Your task to perform on an android device: Open Amazon Image 0: 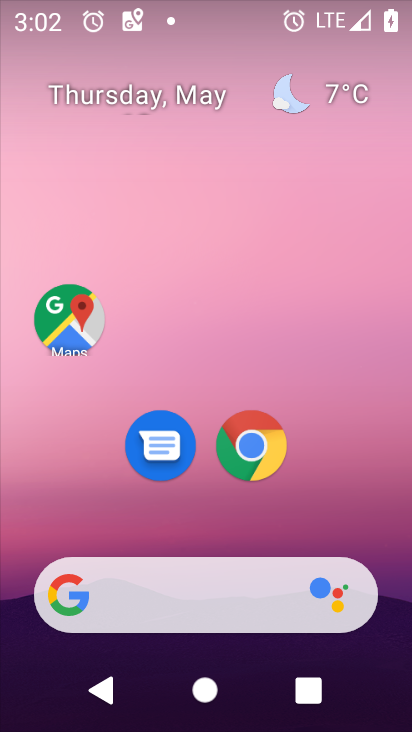
Step 0: click (250, 452)
Your task to perform on an android device: Open Amazon Image 1: 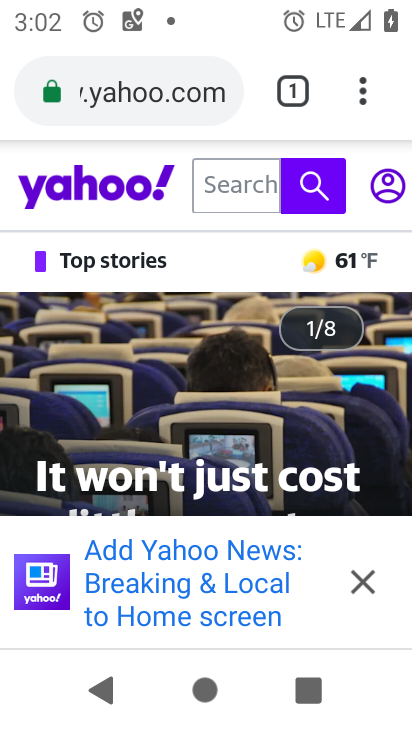
Step 1: click (127, 91)
Your task to perform on an android device: Open Amazon Image 2: 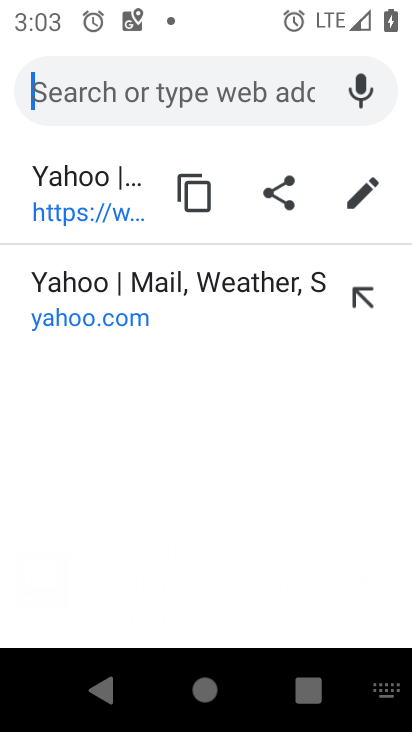
Step 2: type "amazon"
Your task to perform on an android device: Open Amazon Image 3: 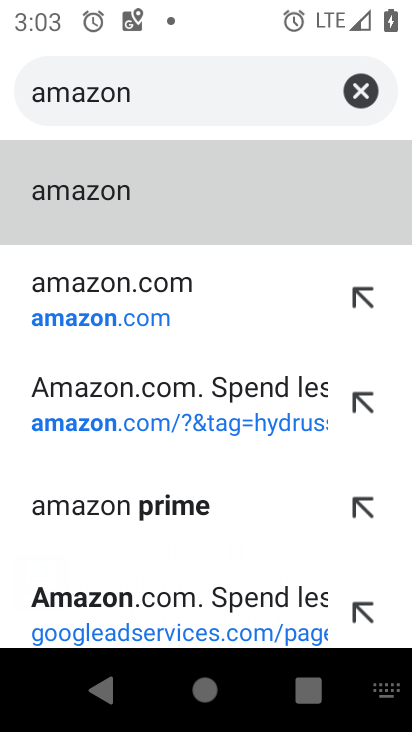
Step 3: click (98, 191)
Your task to perform on an android device: Open Amazon Image 4: 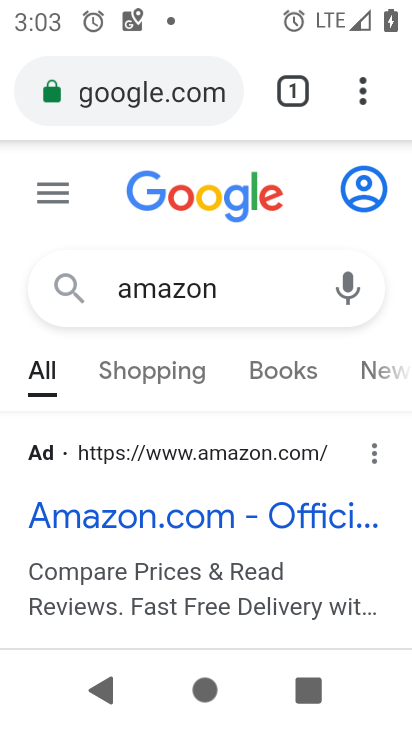
Step 4: click (73, 520)
Your task to perform on an android device: Open Amazon Image 5: 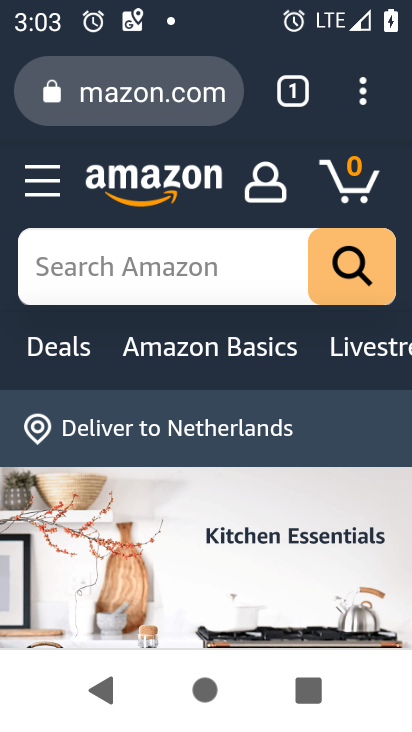
Step 5: task complete